Your task to perform on an android device: Open Wikipedia Image 0: 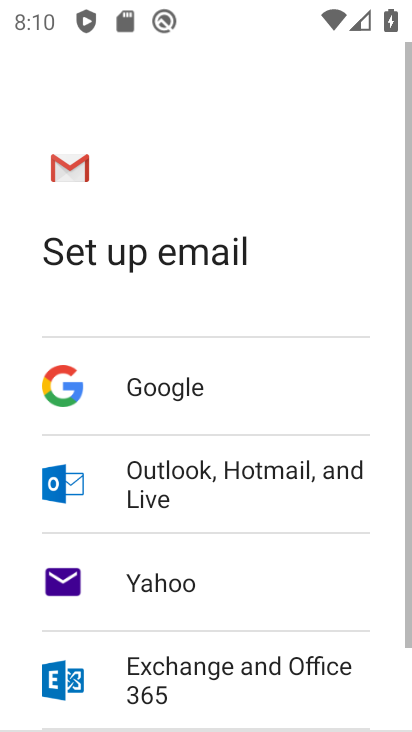
Step 0: press home button
Your task to perform on an android device: Open Wikipedia Image 1: 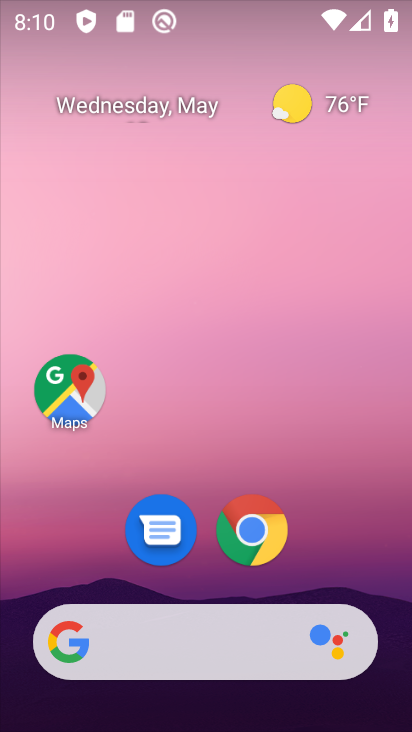
Step 1: drag from (344, 526) to (349, 176)
Your task to perform on an android device: Open Wikipedia Image 2: 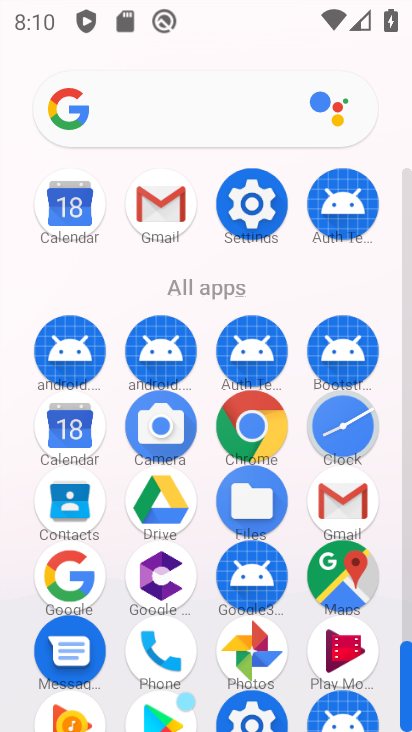
Step 2: click (232, 426)
Your task to perform on an android device: Open Wikipedia Image 3: 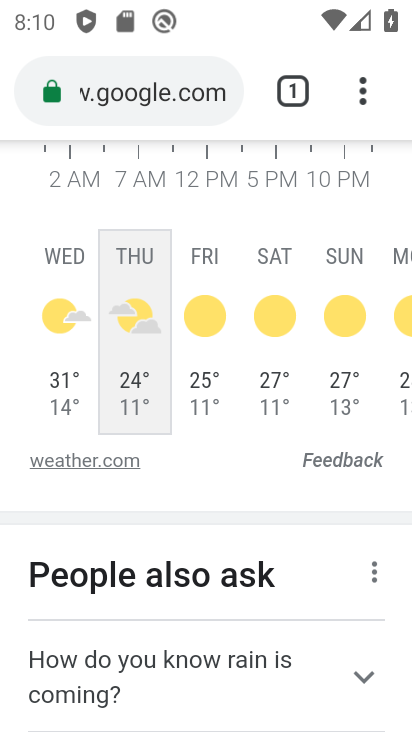
Step 3: click (295, 89)
Your task to perform on an android device: Open Wikipedia Image 4: 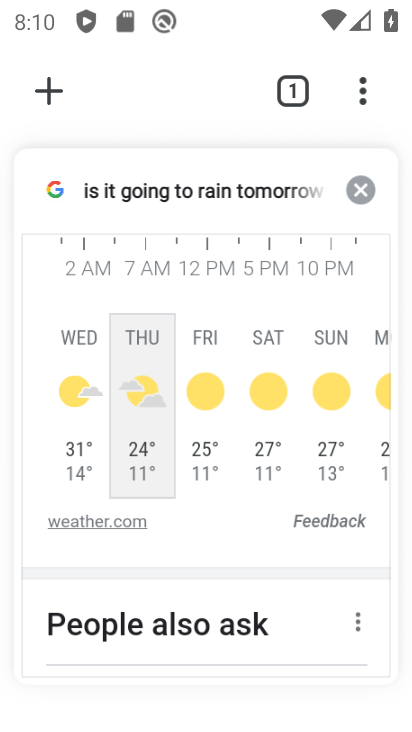
Step 4: click (59, 91)
Your task to perform on an android device: Open Wikipedia Image 5: 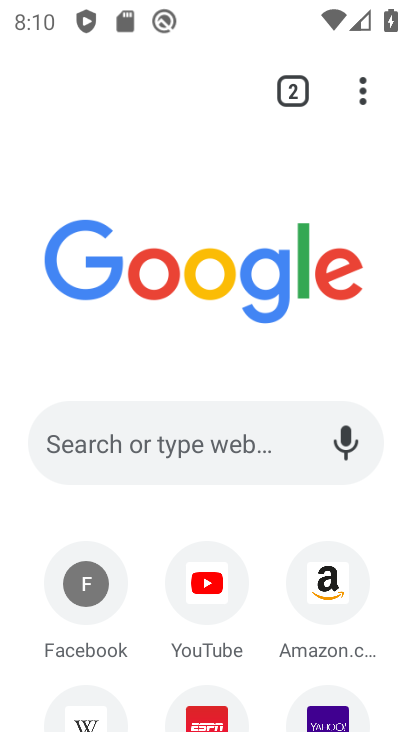
Step 5: click (99, 715)
Your task to perform on an android device: Open Wikipedia Image 6: 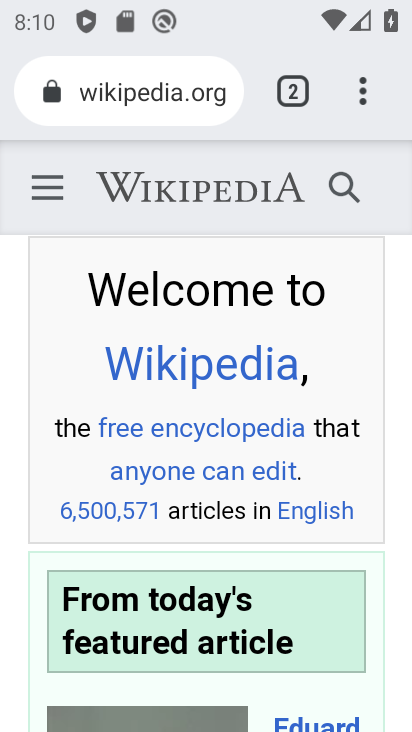
Step 6: task complete